Your task to perform on an android device: Open Google Maps Image 0: 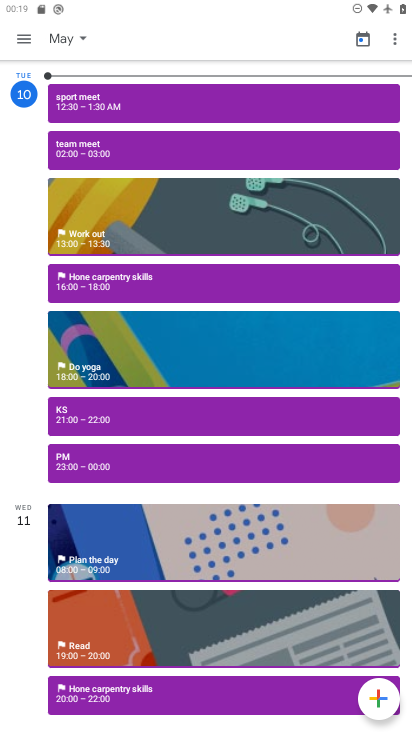
Step 0: press home button
Your task to perform on an android device: Open Google Maps Image 1: 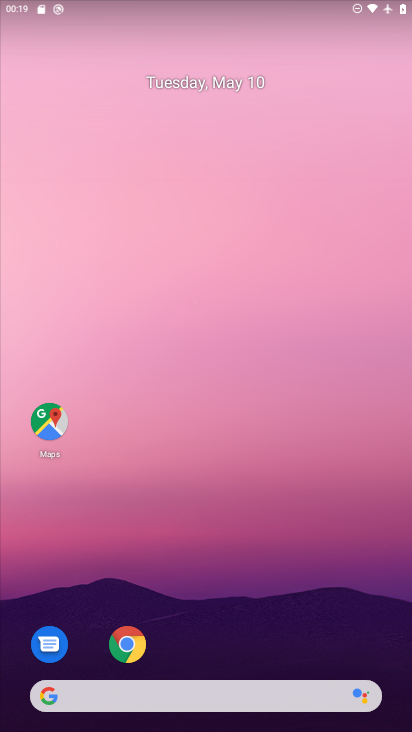
Step 1: click (55, 417)
Your task to perform on an android device: Open Google Maps Image 2: 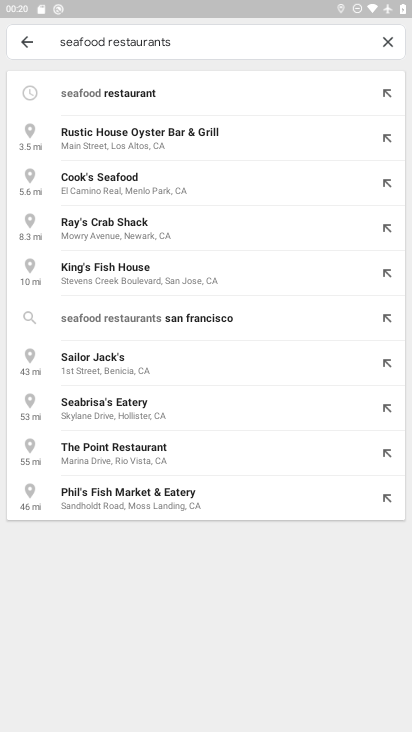
Step 2: click (22, 37)
Your task to perform on an android device: Open Google Maps Image 3: 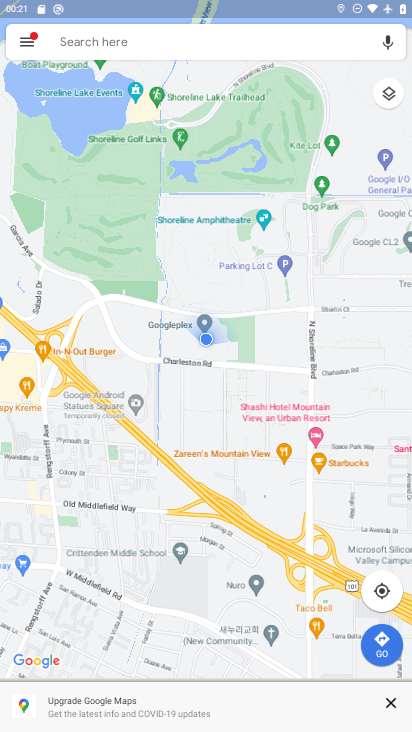
Step 3: task complete